Your task to perform on an android device: change your default location settings in chrome Image 0: 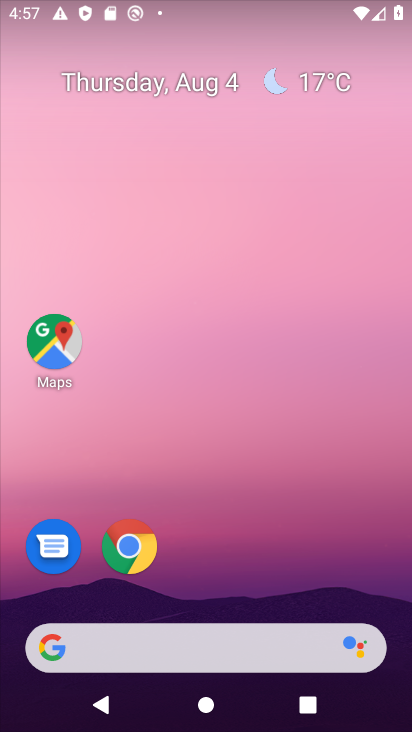
Step 0: drag from (185, 601) to (68, 23)
Your task to perform on an android device: change your default location settings in chrome Image 1: 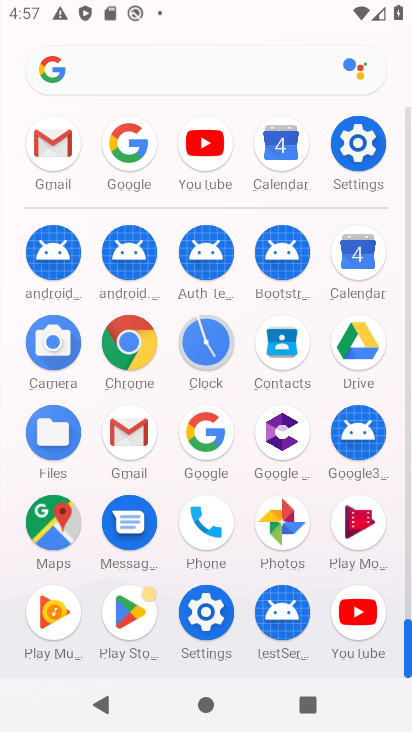
Step 1: click (119, 354)
Your task to perform on an android device: change your default location settings in chrome Image 2: 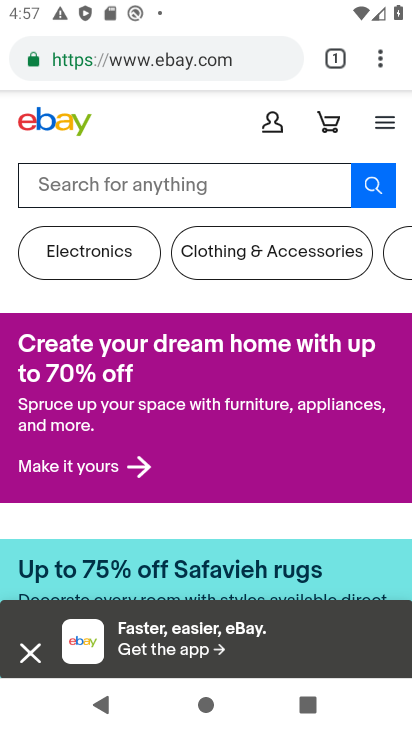
Step 2: click (376, 57)
Your task to perform on an android device: change your default location settings in chrome Image 3: 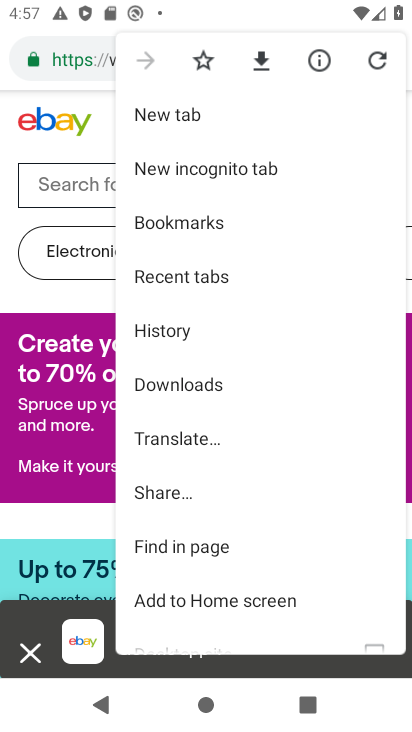
Step 3: drag from (219, 540) to (212, 338)
Your task to perform on an android device: change your default location settings in chrome Image 4: 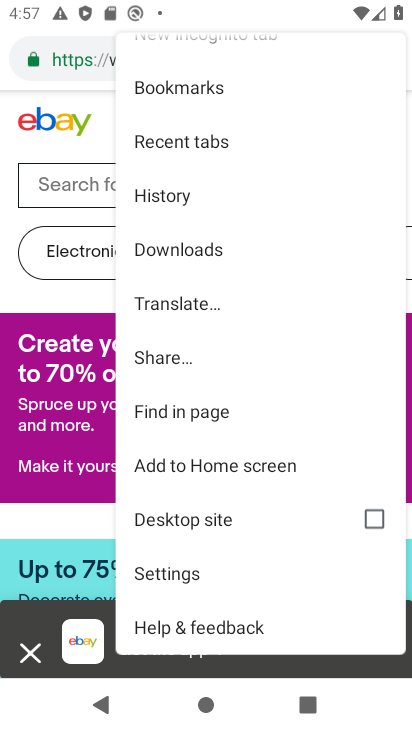
Step 4: click (160, 577)
Your task to perform on an android device: change your default location settings in chrome Image 5: 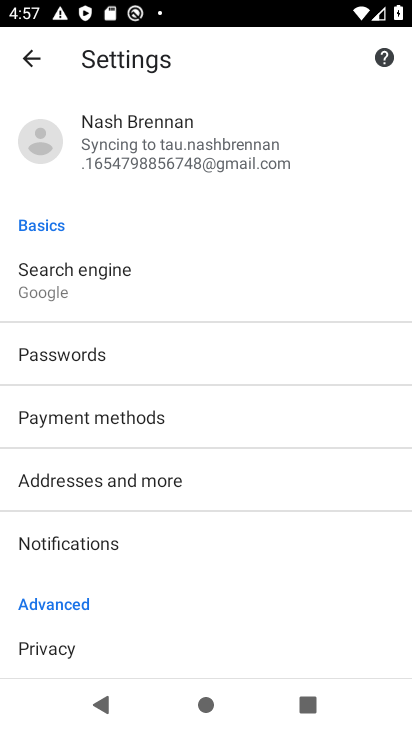
Step 5: drag from (160, 519) to (160, 388)
Your task to perform on an android device: change your default location settings in chrome Image 6: 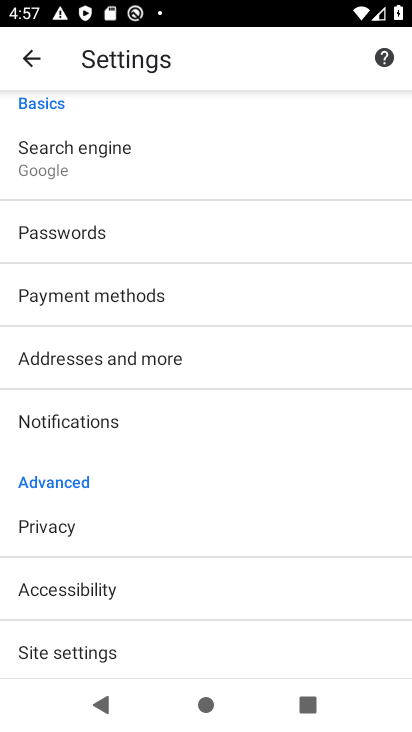
Step 6: drag from (123, 546) to (122, 226)
Your task to perform on an android device: change your default location settings in chrome Image 7: 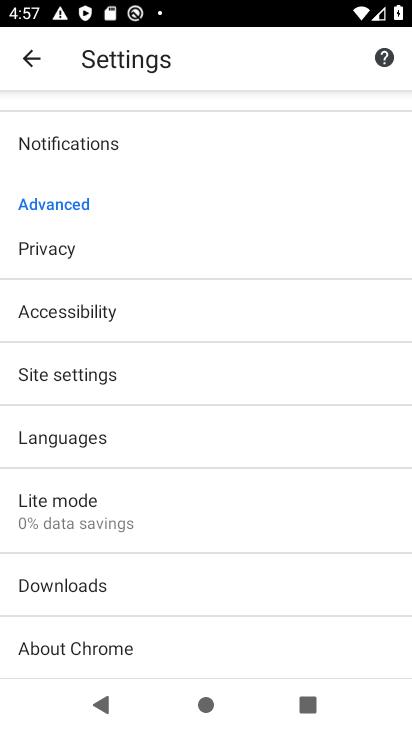
Step 7: drag from (88, 519) to (63, 197)
Your task to perform on an android device: change your default location settings in chrome Image 8: 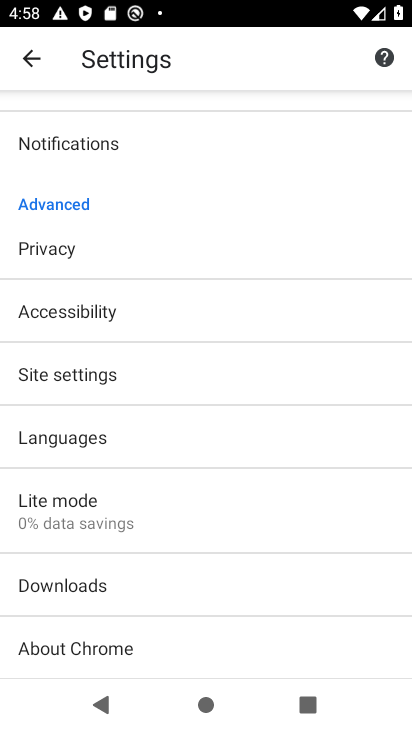
Step 8: click (67, 364)
Your task to perform on an android device: change your default location settings in chrome Image 9: 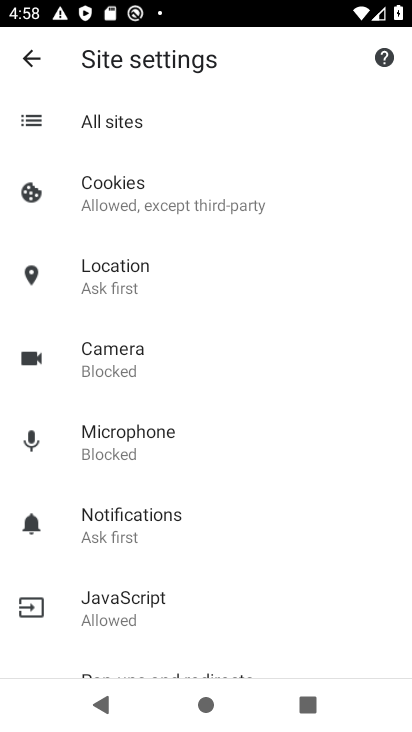
Step 9: click (121, 279)
Your task to perform on an android device: change your default location settings in chrome Image 10: 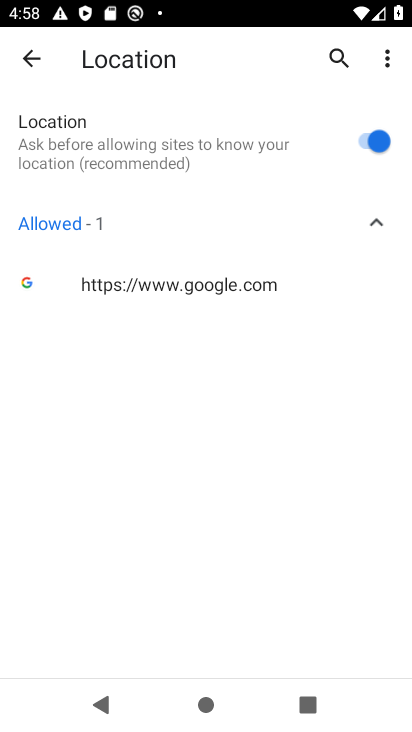
Step 10: click (363, 146)
Your task to perform on an android device: change your default location settings in chrome Image 11: 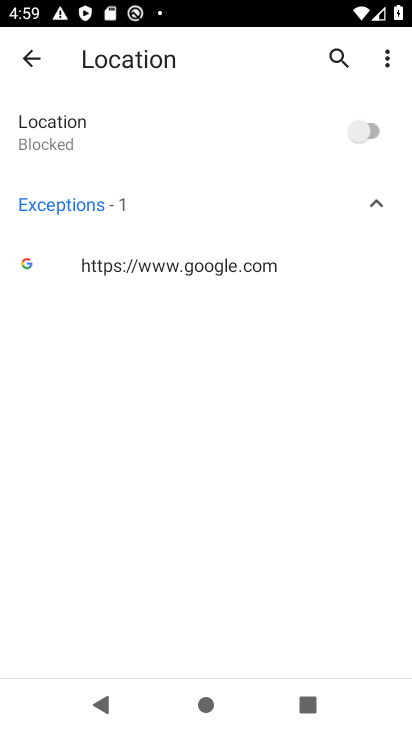
Step 11: task complete